Your task to perform on an android device: toggle sleep mode Image 0: 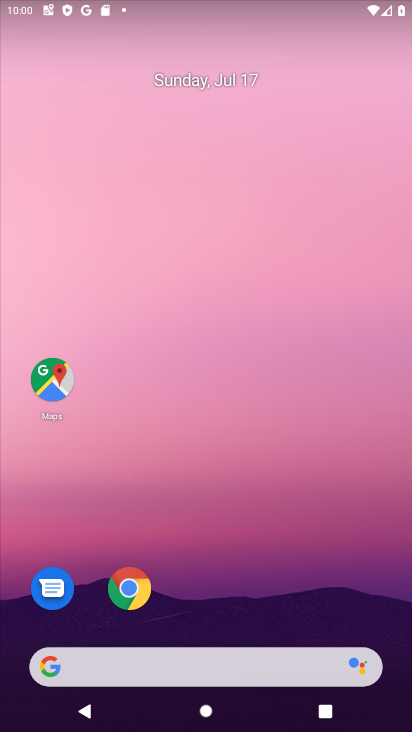
Step 0: drag from (208, 641) to (213, 37)
Your task to perform on an android device: toggle sleep mode Image 1: 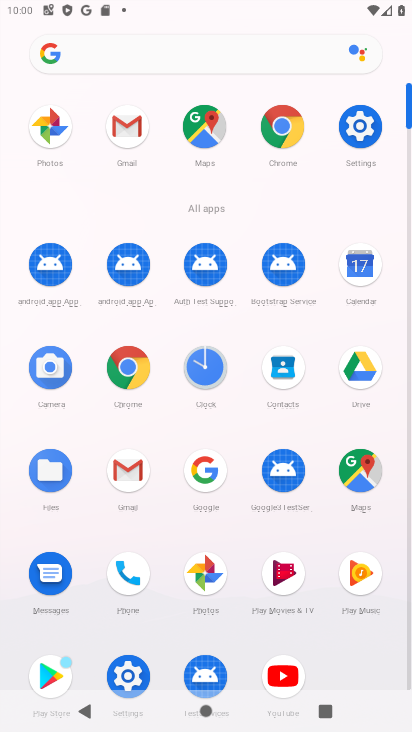
Step 1: click (369, 119)
Your task to perform on an android device: toggle sleep mode Image 2: 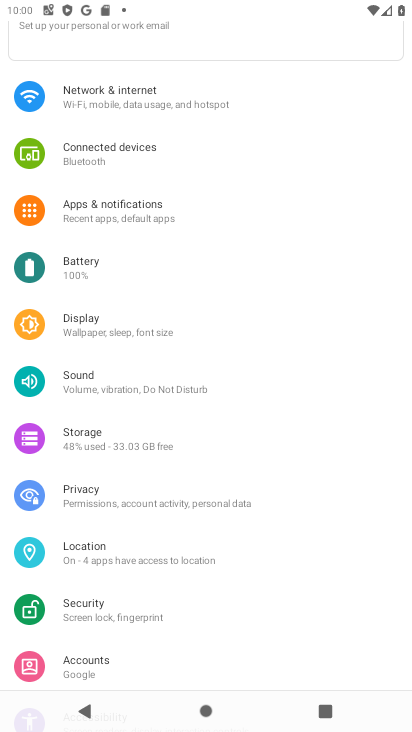
Step 2: task complete